Your task to perform on an android device: Open wifi settings Image 0: 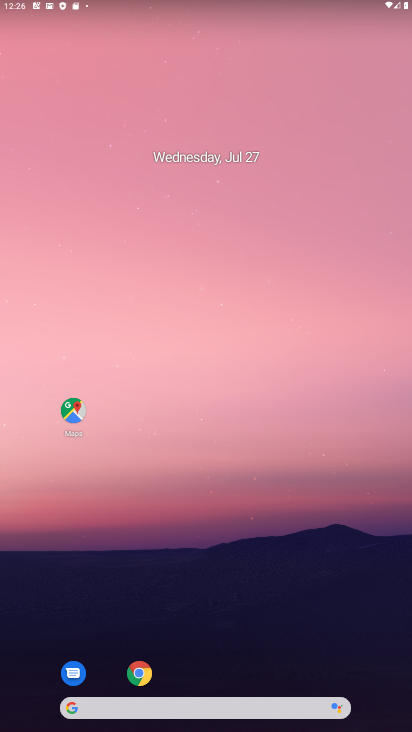
Step 0: drag from (208, 679) to (226, 149)
Your task to perform on an android device: Open wifi settings Image 1: 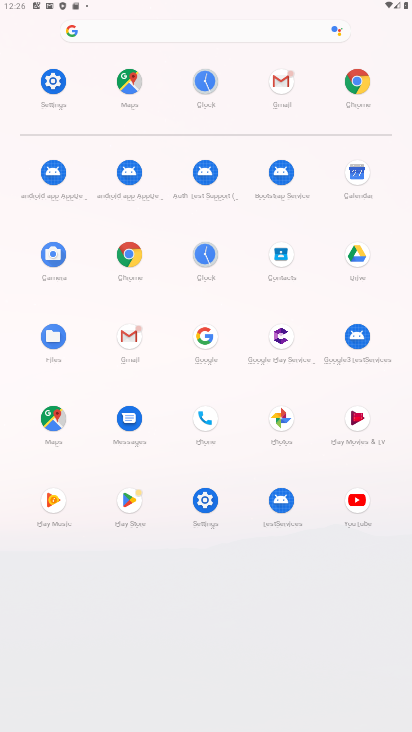
Step 1: click (47, 72)
Your task to perform on an android device: Open wifi settings Image 2: 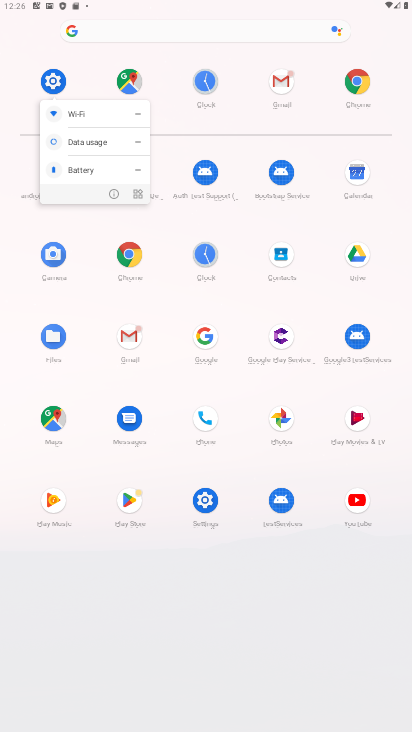
Step 2: click (49, 76)
Your task to perform on an android device: Open wifi settings Image 3: 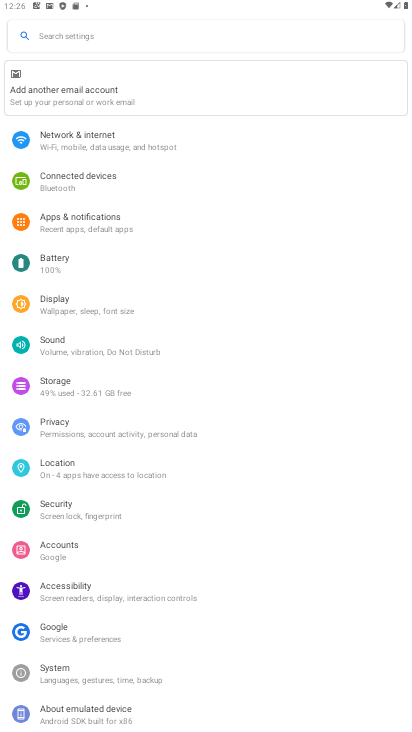
Step 3: click (115, 131)
Your task to perform on an android device: Open wifi settings Image 4: 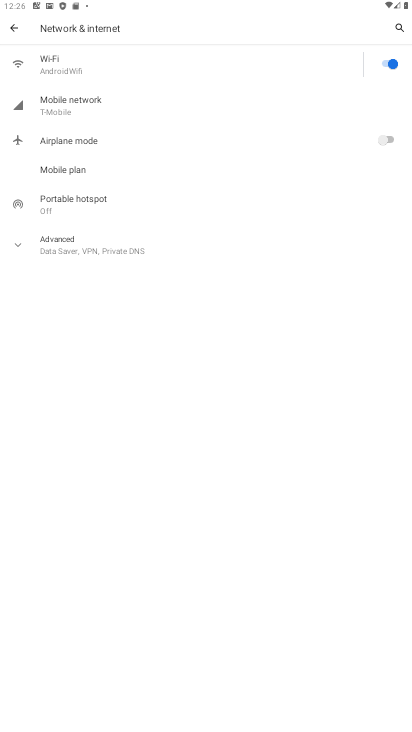
Step 4: click (70, 67)
Your task to perform on an android device: Open wifi settings Image 5: 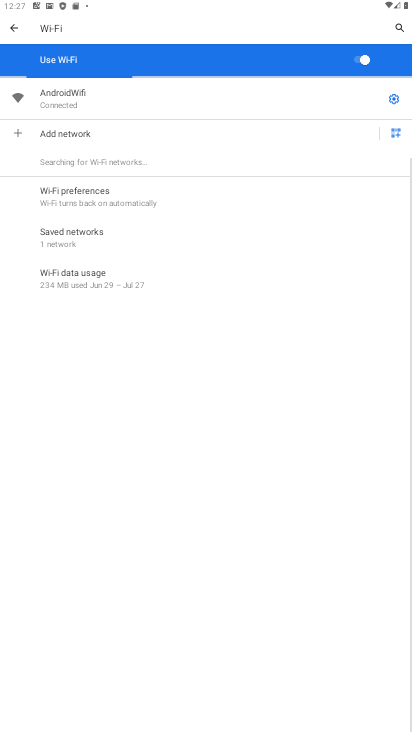
Step 5: task complete